Your task to perform on an android device: Go to Maps Image 0: 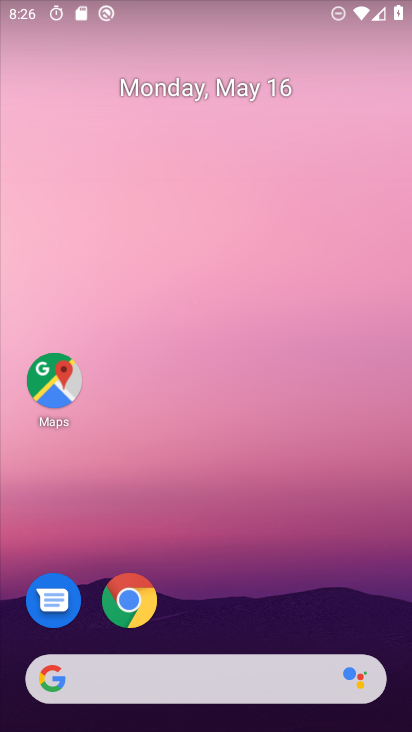
Step 0: click (52, 390)
Your task to perform on an android device: Go to Maps Image 1: 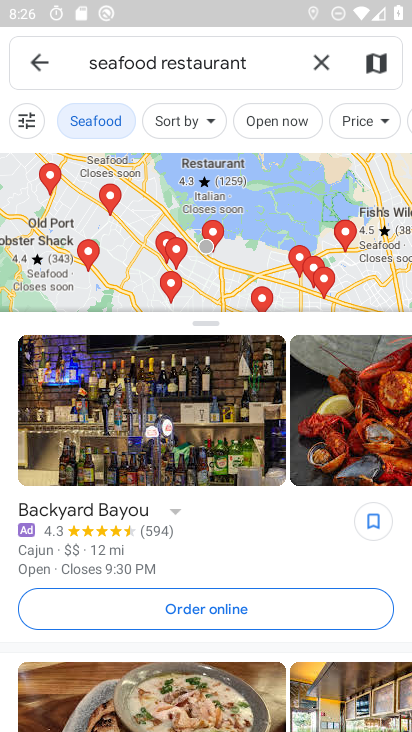
Step 1: click (37, 60)
Your task to perform on an android device: Go to Maps Image 2: 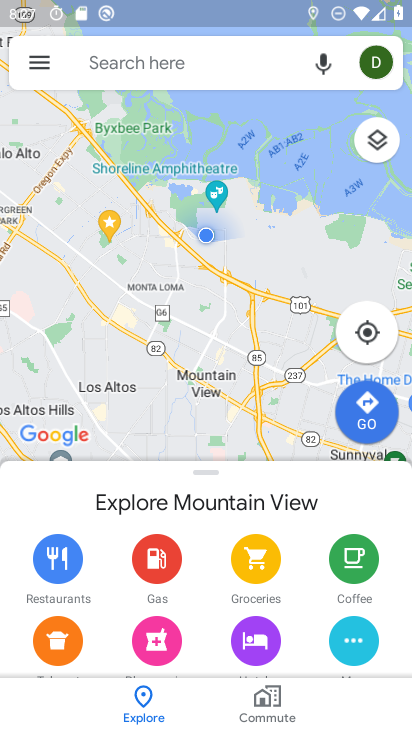
Step 2: task complete